Your task to perform on an android device: Go to Reddit.com Image 0: 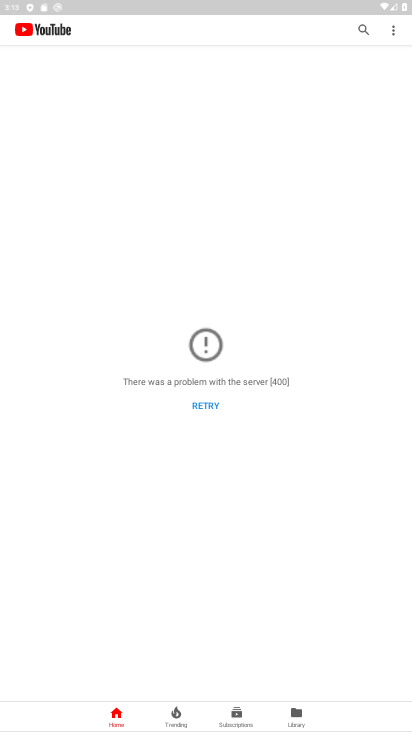
Step 0: press home button
Your task to perform on an android device: Go to Reddit.com Image 1: 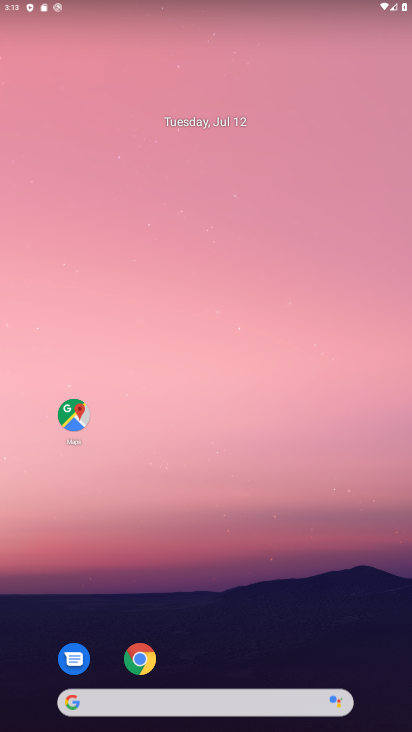
Step 1: click (141, 661)
Your task to perform on an android device: Go to Reddit.com Image 2: 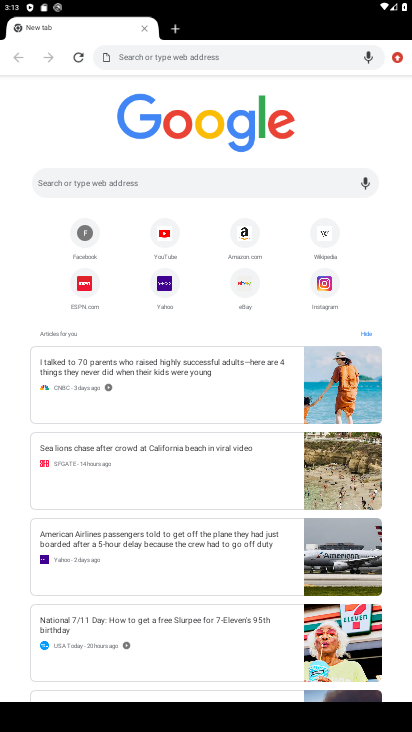
Step 2: click (220, 177)
Your task to perform on an android device: Go to Reddit.com Image 3: 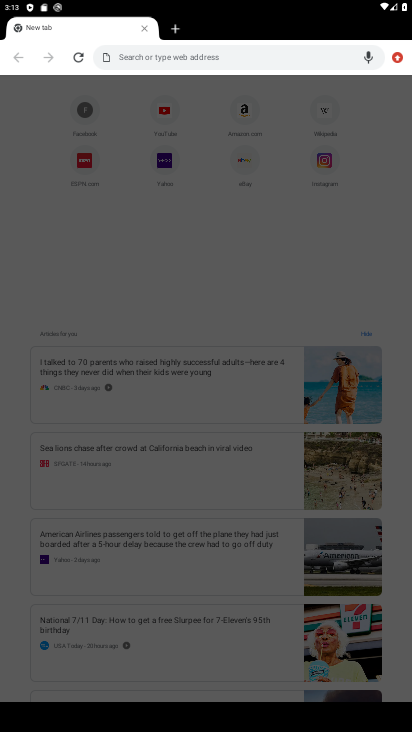
Step 3: type "reddit.com"
Your task to perform on an android device: Go to Reddit.com Image 4: 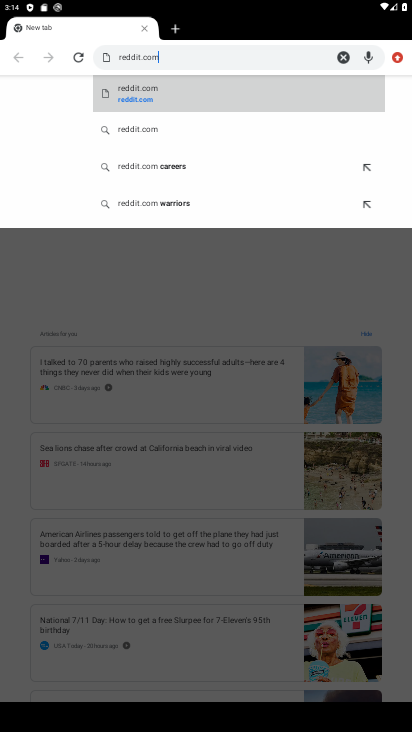
Step 4: click (256, 99)
Your task to perform on an android device: Go to Reddit.com Image 5: 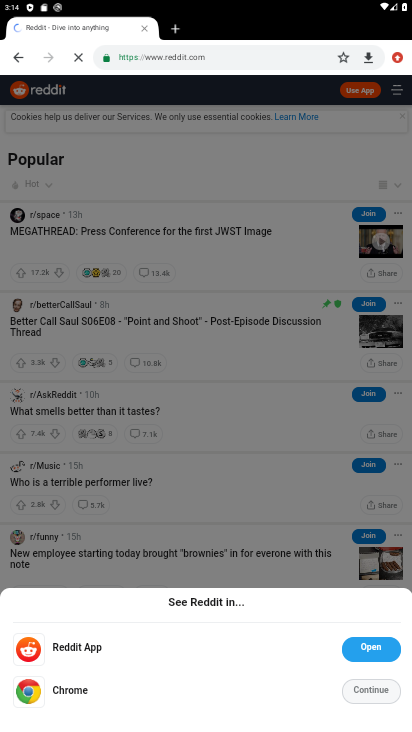
Step 5: task complete